Your task to perform on an android device: What's the weather? Image 0: 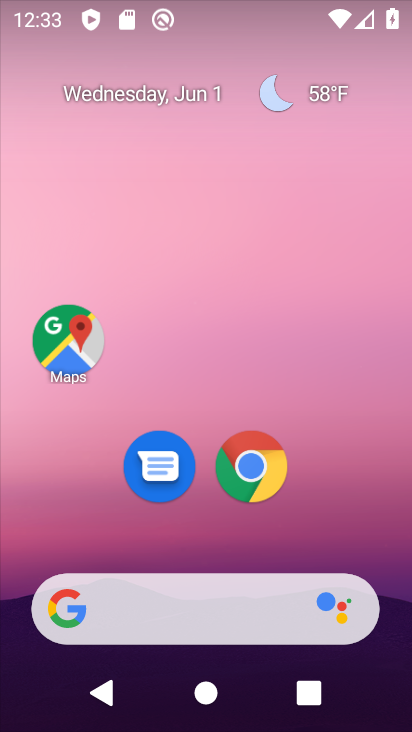
Step 0: click (150, 615)
Your task to perform on an android device: What's the weather? Image 1: 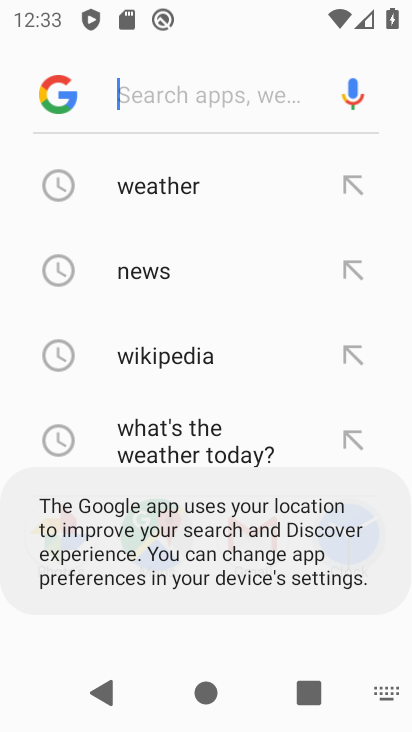
Step 1: click (162, 186)
Your task to perform on an android device: What's the weather? Image 2: 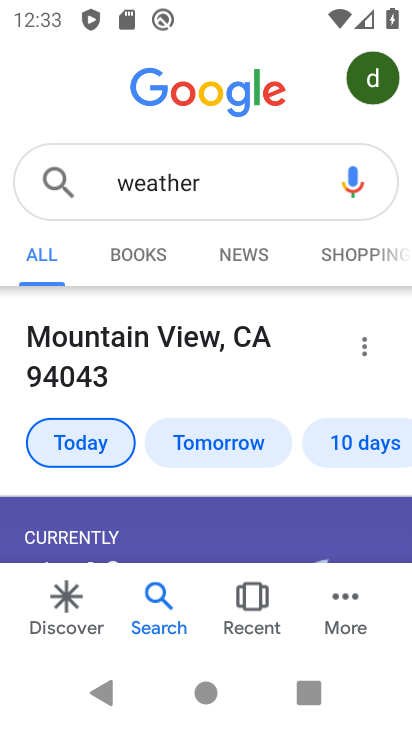
Step 2: task complete